Your task to perform on an android device: Add apple airpods to the cart on newegg.com Image 0: 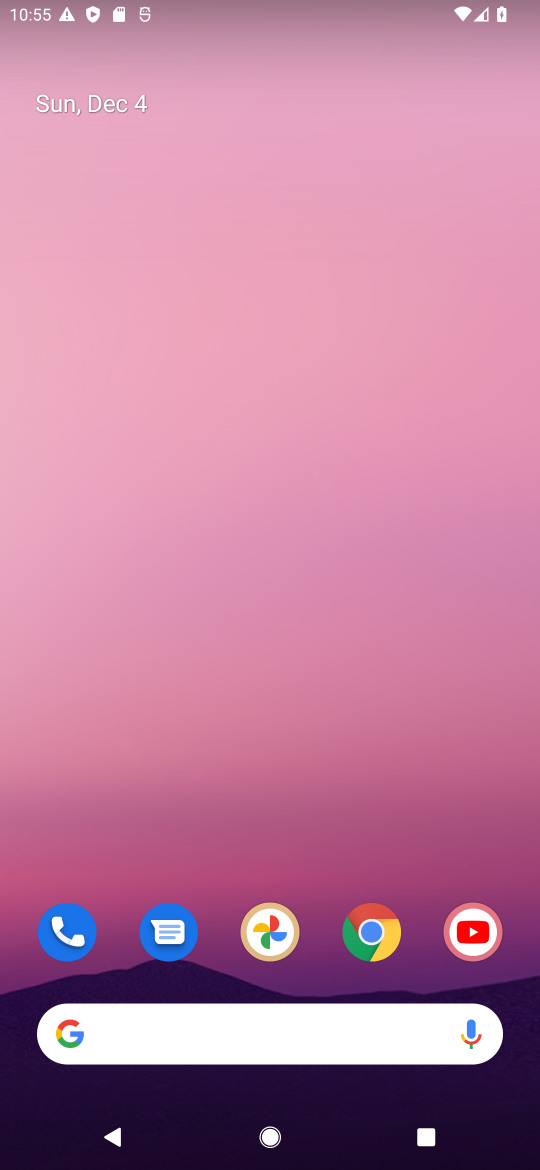
Step 0: click (372, 925)
Your task to perform on an android device: Add apple airpods to the cart on newegg.com Image 1: 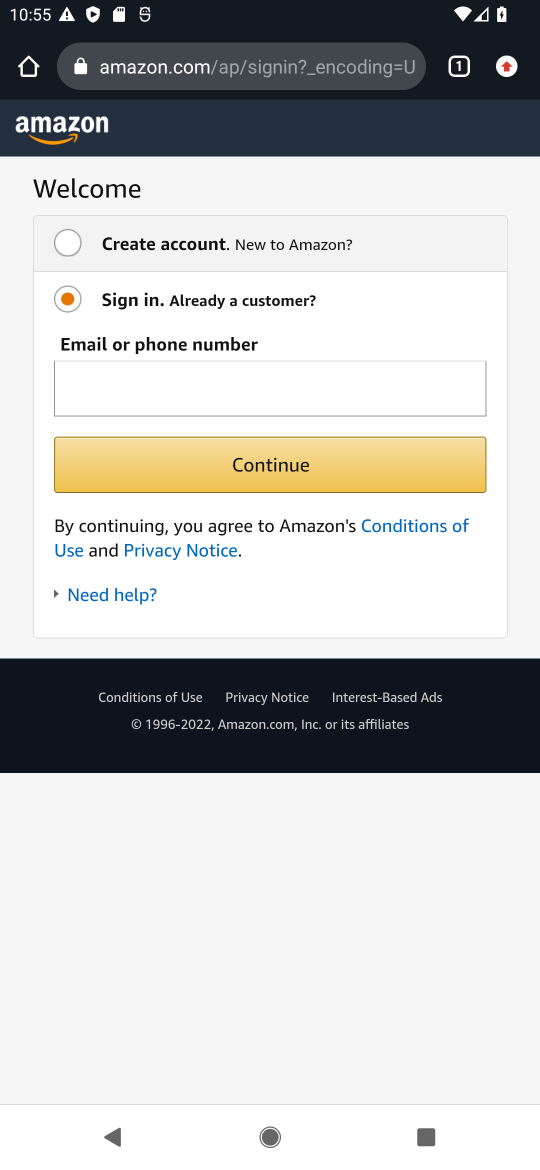
Step 1: click (215, 64)
Your task to perform on an android device: Add apple airpods to the cart on newegg.com Image 2: 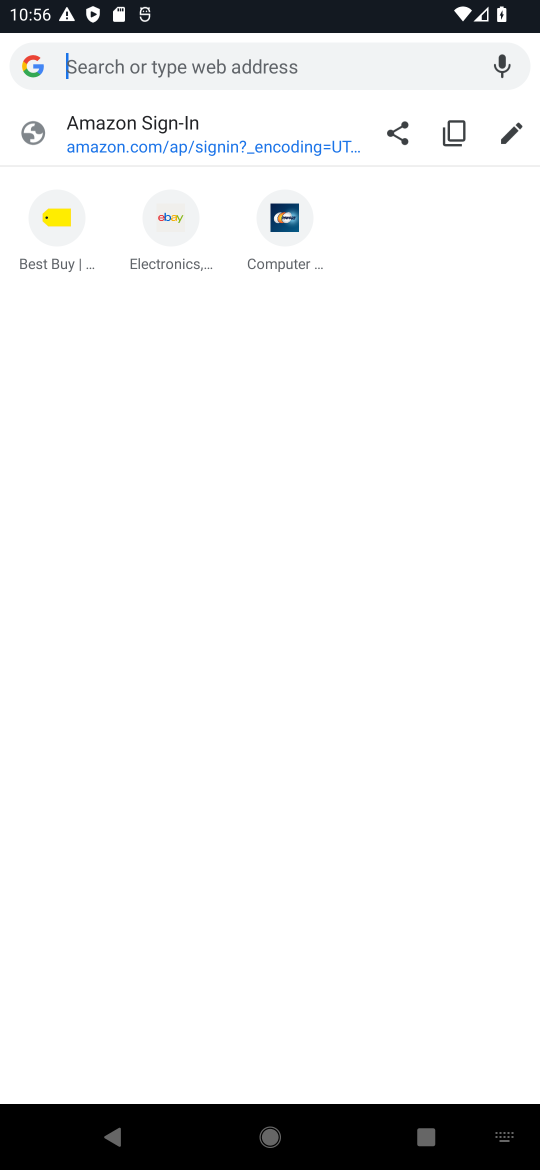
Step 2: type "newegg"
Your task to perform on an android device: Add apple airpods to the cart on newegg.com Image 3: 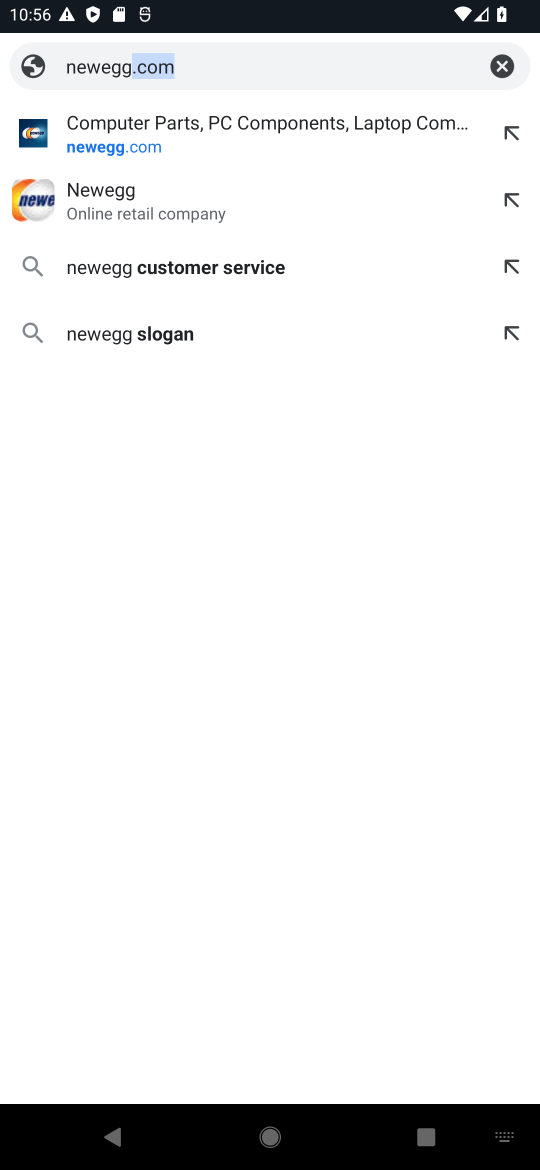
Step 3: click (154, 132)
Your task to perform on an android device: Add apple airpods to the cart on newegg.com Image 4: 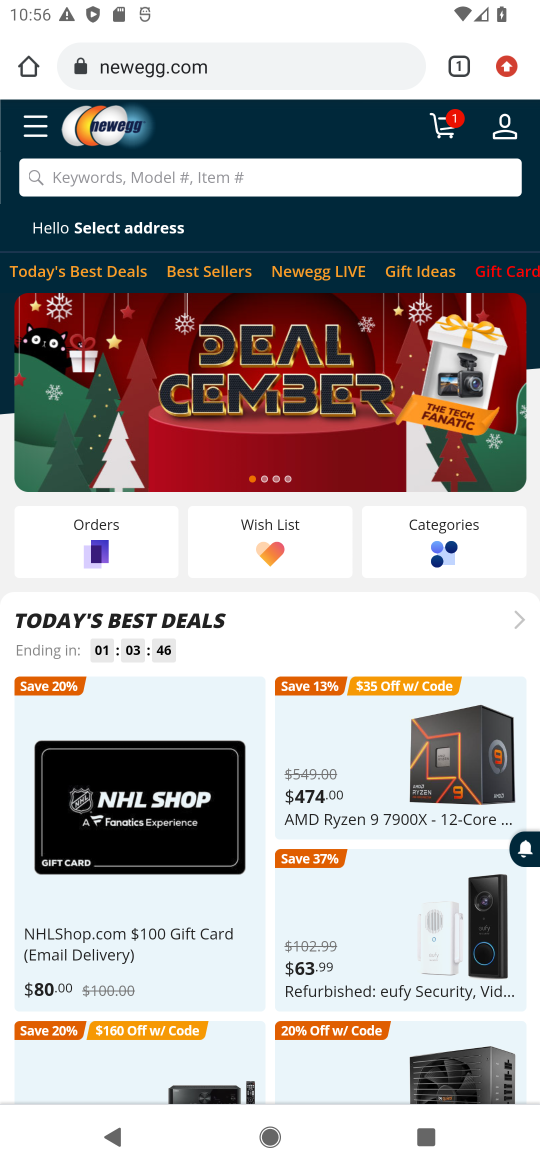
Step 4: click (262, 177)
Your task to perform on an android device: Add apple airpods to the cart on newegg.com Image 5: 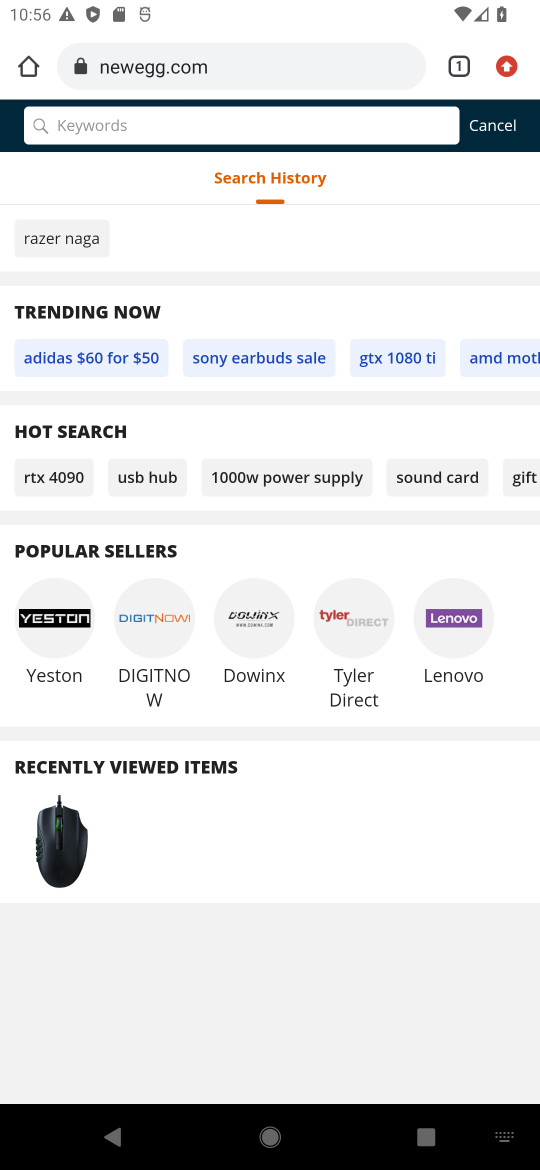
Step 5: type "apple airpods"
Your task to perform on an android device: Add apple airpods to the cart on newegg.com Image 6: 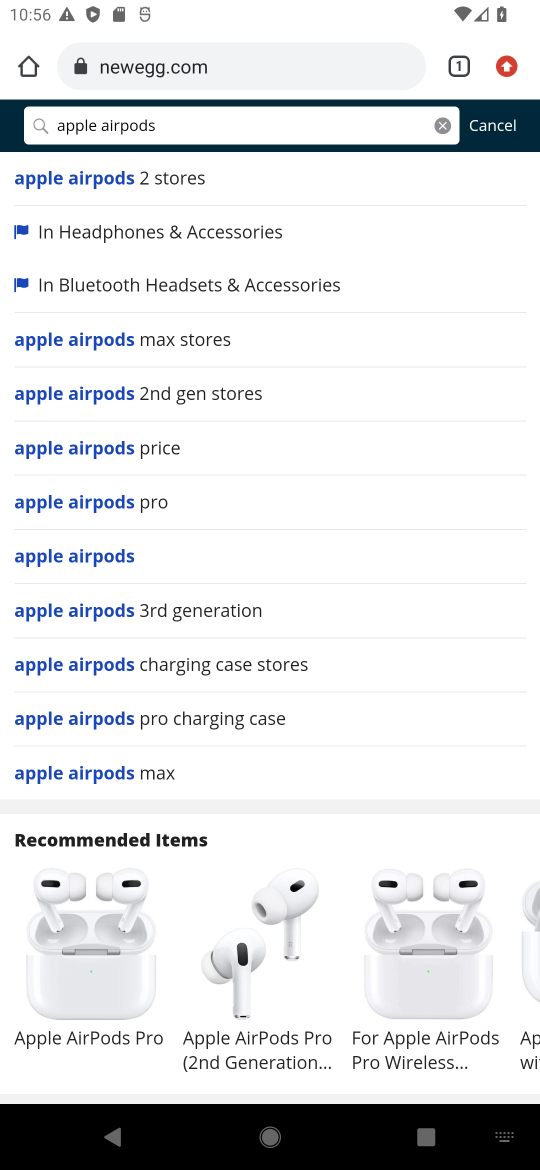
Step 6: click (125, 175)
Your task to perform on an android device: Add apple airpods to the cart on newegg.com Image 7: 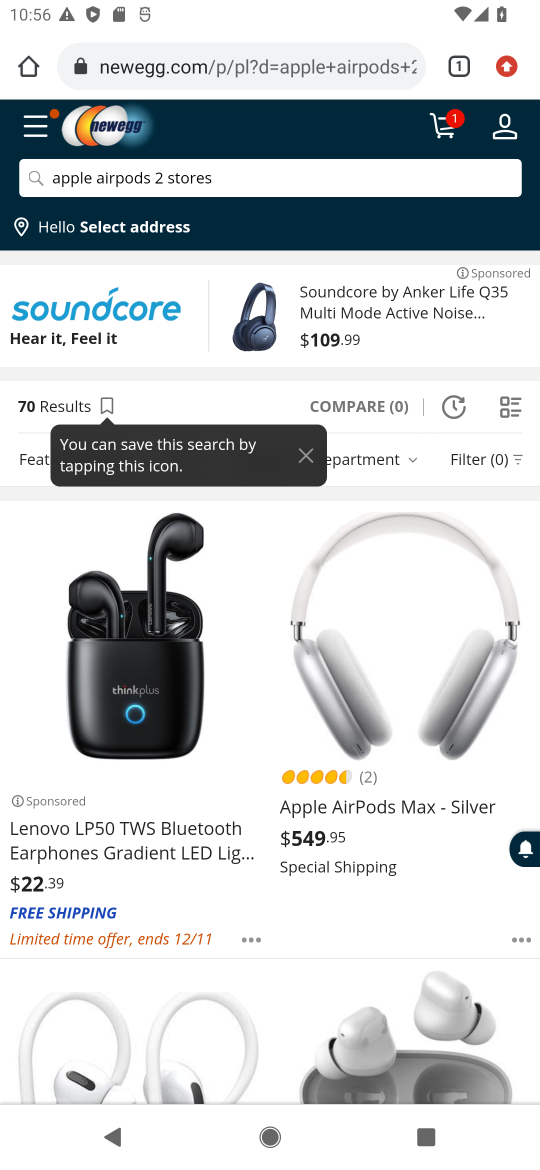
Step 7: click (201, 659)
Your task to perform on an android device: Add apple airpods to the cart on newegg.com Image 8: 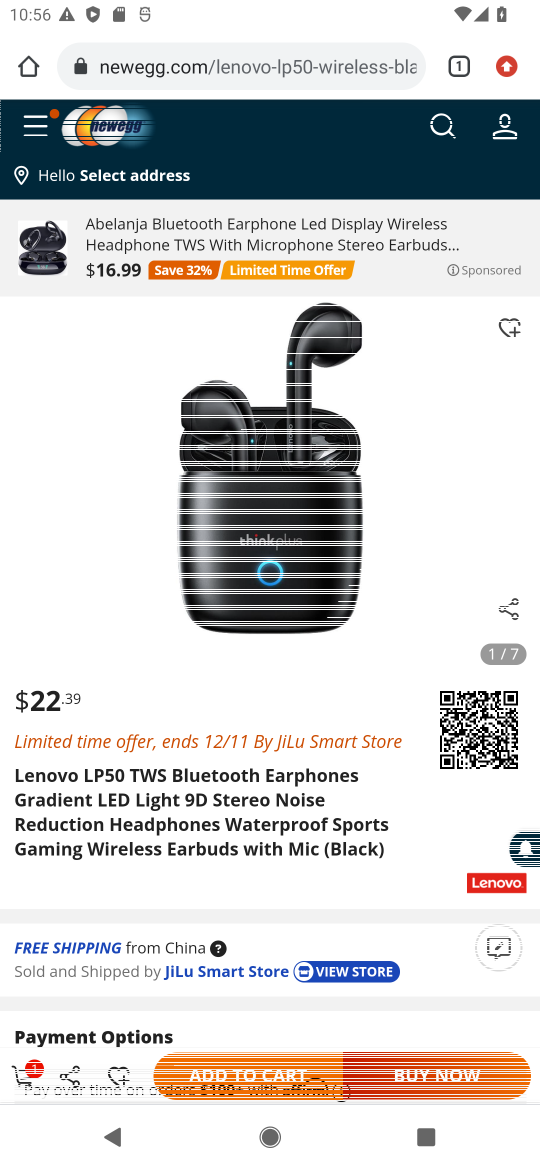
Step 8: click (250, 1070)
Your task to perform on an android device: Add apple airpods to the cart on newegg.com Image 9: 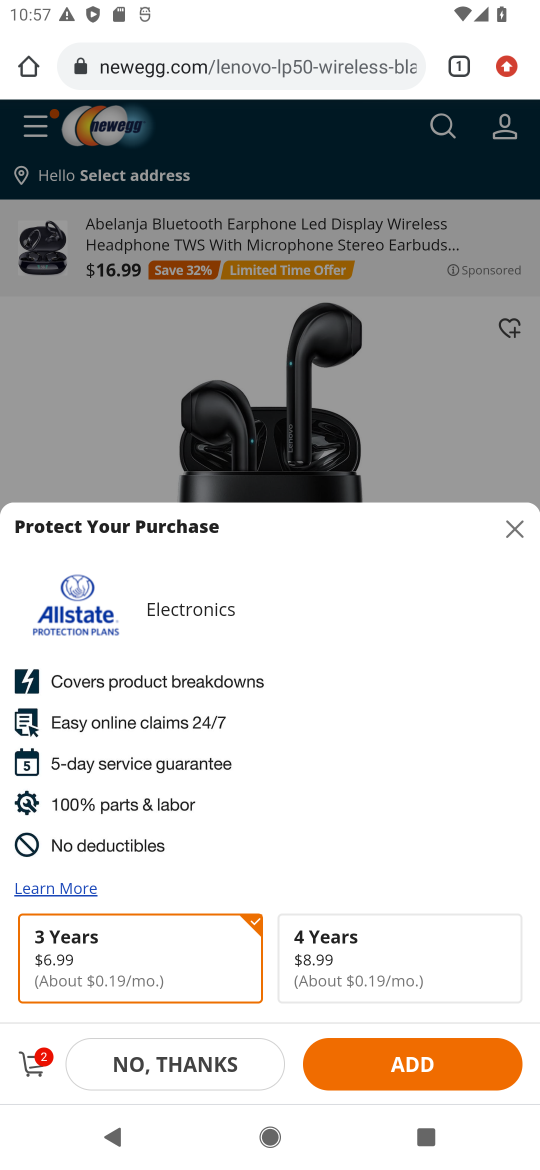
Step 9: click (514, 525)
Your task to perform on an android device: Add apple airpods to the cart on newegg.com Image 10: 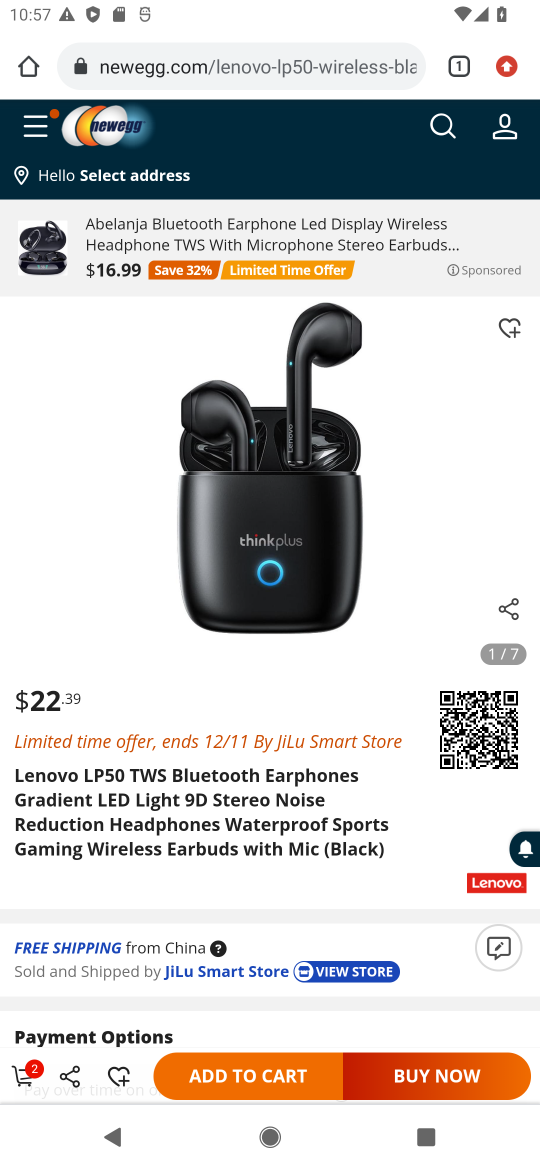
Step 10: task complete